Your task to perform on an android device: Go to Wikipedia Image 0: 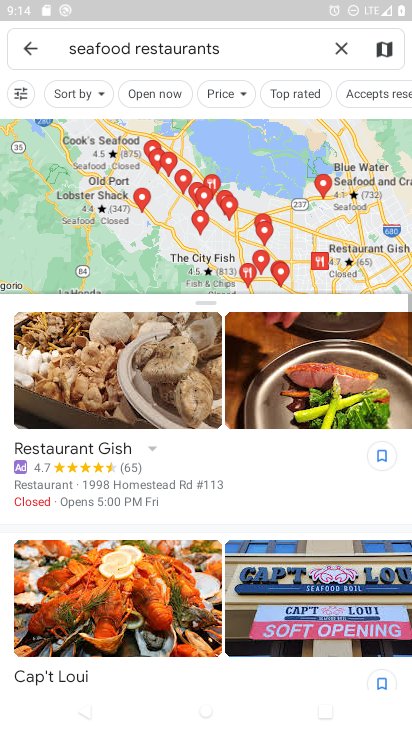
Step 0: press home button
Your task to perform on an android device: Go to Wikipedia Image 1: 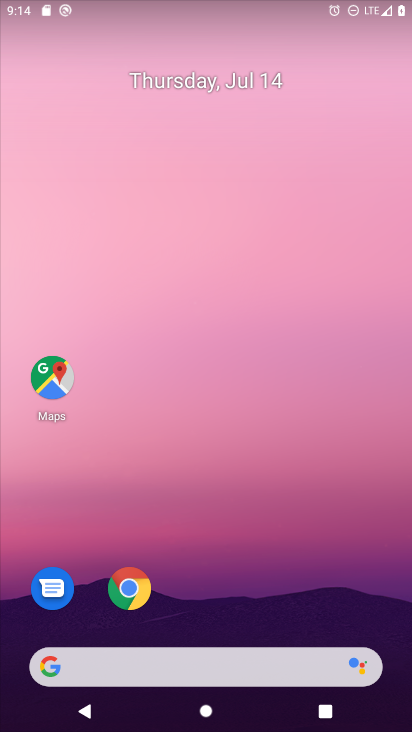
Step 1: drag from (336, 558) to (341, 4)
Your task to perform on an android device: Go to Wikipedia Image 2: 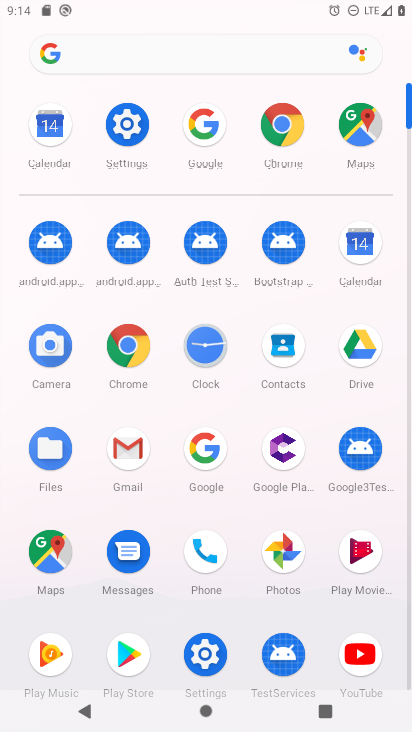
Step 2: click (273, 121)
Your task to perform on an android device: Go to Wikipedia Image 3: 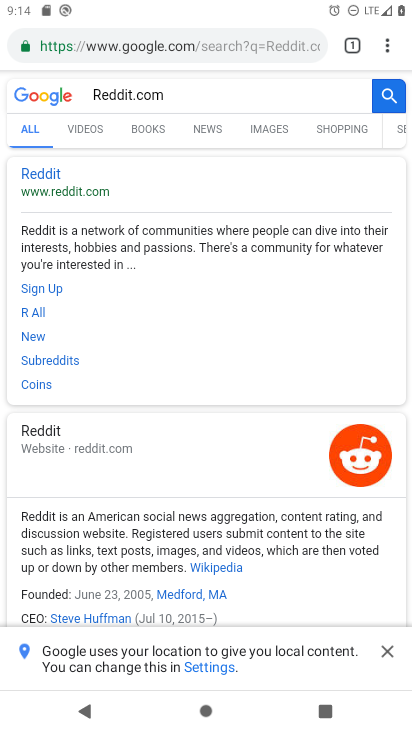
Step 3: press back button
Your task to perform on an android device: Go to Wikipedia Image 4: 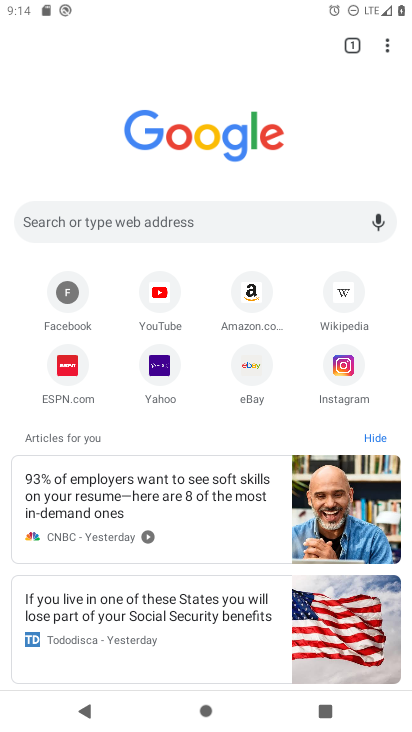
Step 4: click (350, 290)
Your task to perform on an android device: Go to Wikipedia Image 5: 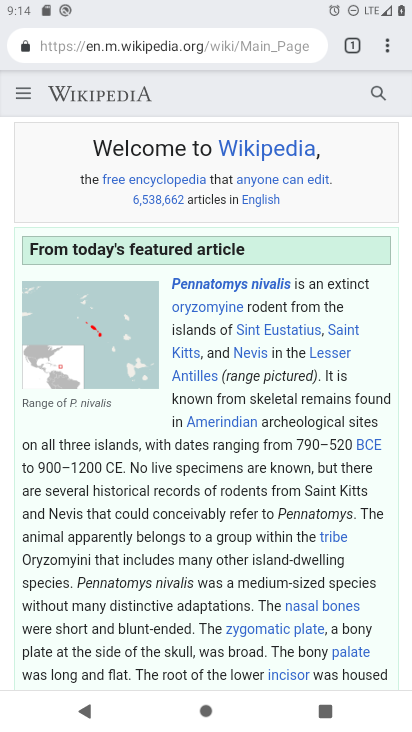
Step 5: task complete